Your task to perform on an android device: Open accessibility settings Image 0: 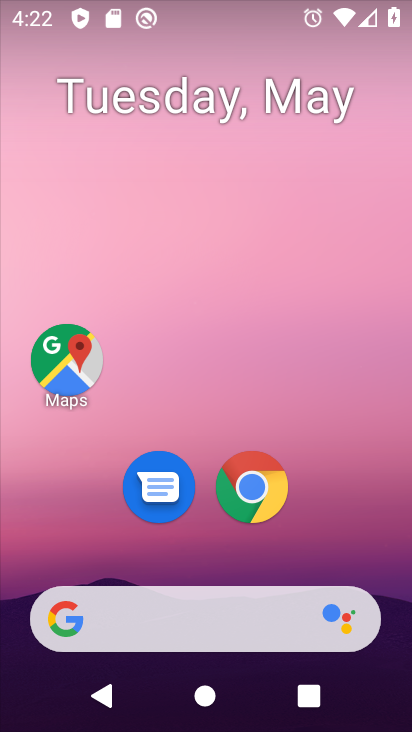
Step 0: drag from (366, 510) to (302, 93)
Your task to perform on an android device: Open accessibility settings Image 1: 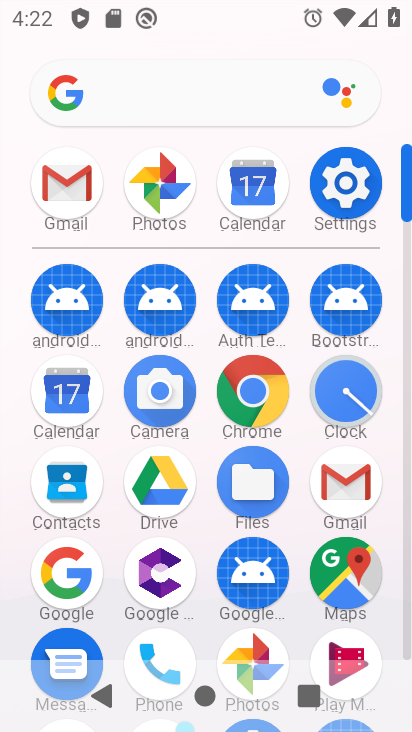
Step 1: click (350, 178)
Your task to perform on an android device: Open accessibility settings Image 2: 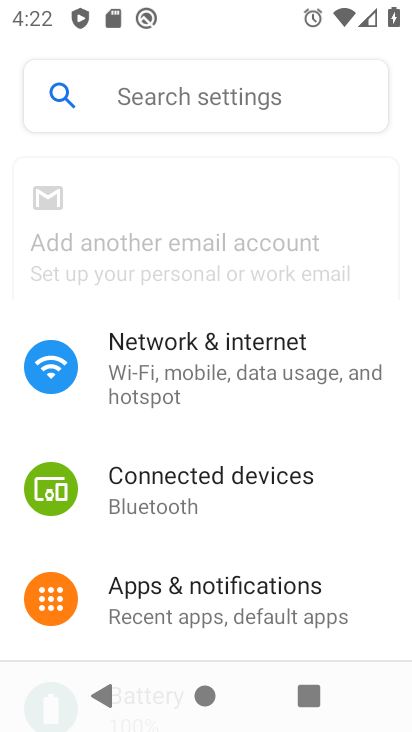
Step 2: drag from (195, 506) to (237, 194)
Your task to perform on an android device: Open accessibility settings Image 3: 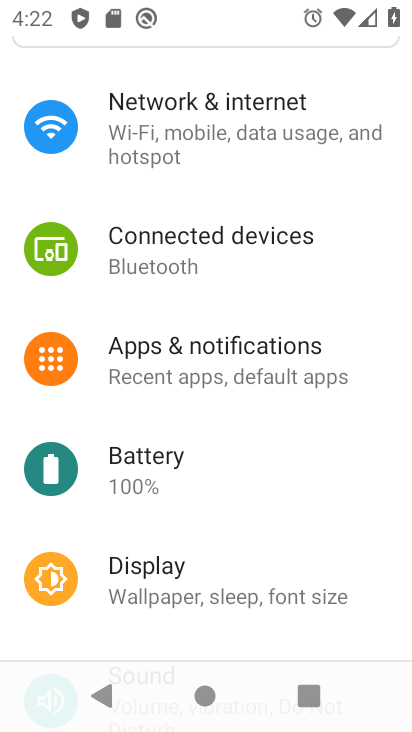
Step 3: drag from (237, 520) to (239, 221)
Your task to perform on an android device: Open accessibility settings Image 4: 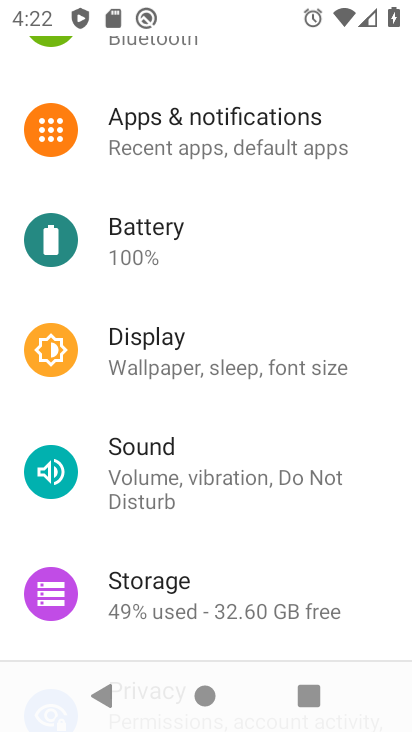
Step 4: drag from (228, 543) to (243, 240)
Your task to perform on an android device: Open accessibility settings Image 5: 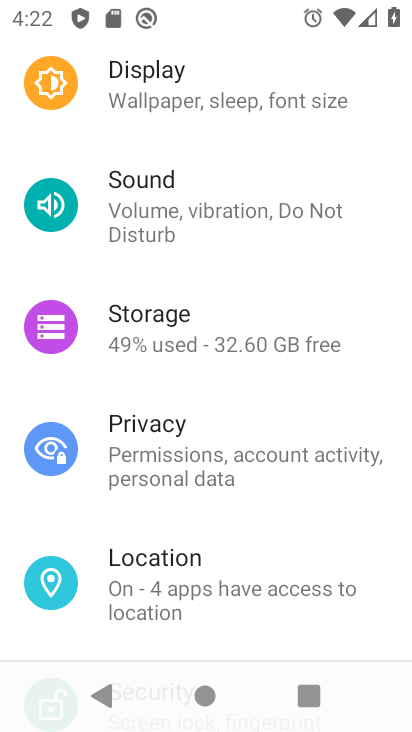
Step 5: drag from (251, 521) to (268, 228)
Your task to perform on an android device: Open accessibility settings Image 6: 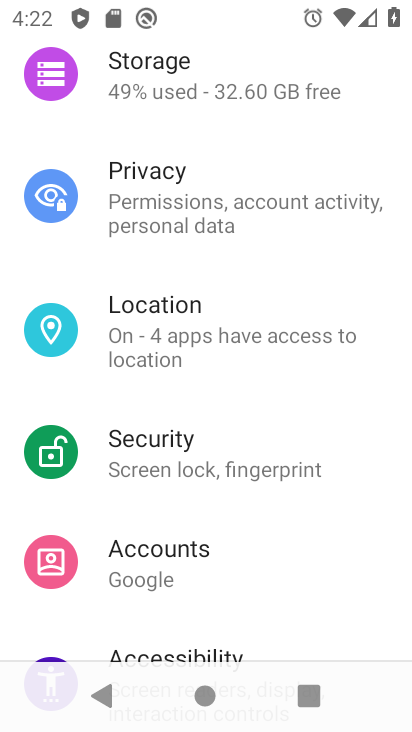
Step 6: drag from (197, 479) to (216, 352)
Your task to perform on an android device: Open accessibility settings Image 7: 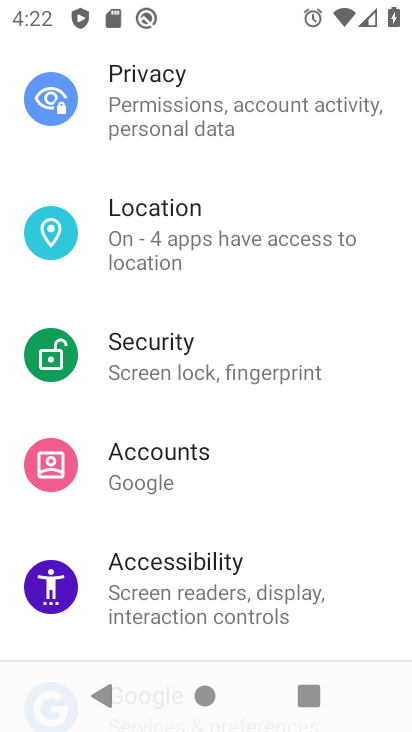
Step 7: click (216, 352)
Your task to perform on an android device: Open accessibility settings Image 8: 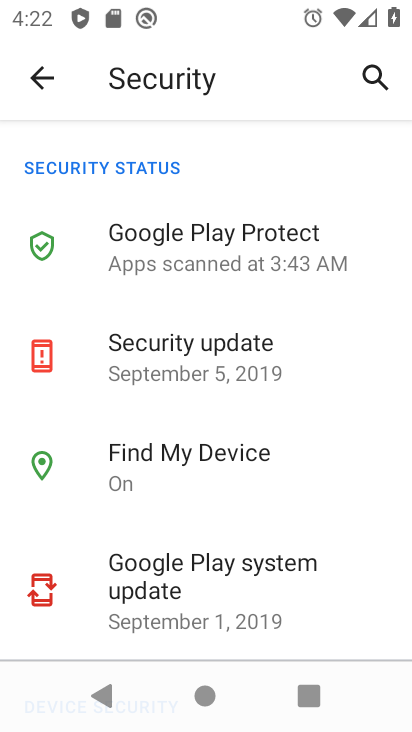
Step 8: click (44, 69)
Your task to perform on an android device: Open accessibility settings Image 9: 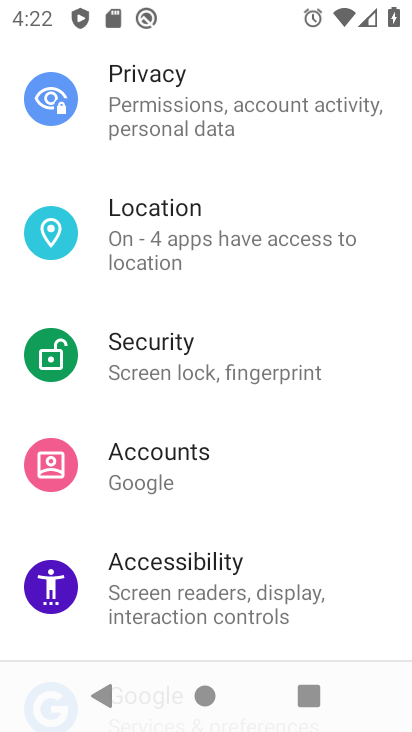
Step 9: click (222, 561)
Your task to perform on an android device: Open accessibility settings Image 10: 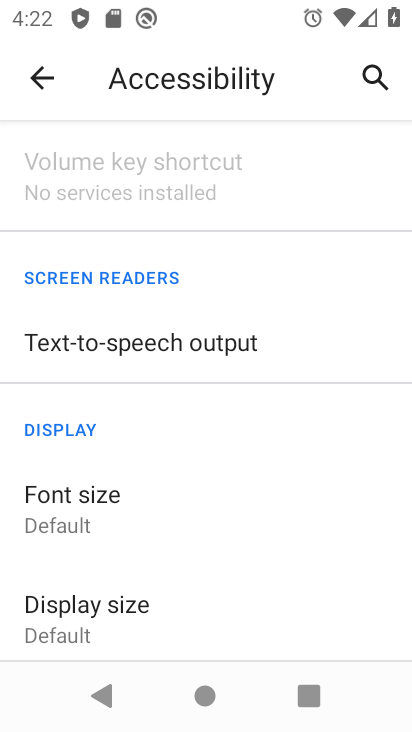
Step 10: task complete